Your task to perform on an android device: Open maps Image 0: 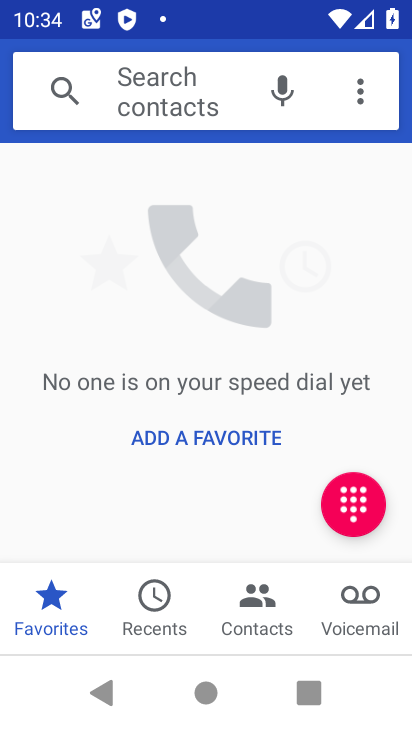
Step 0: task complete